Your task to perform on an android device: Go to calendar. Show me events next week Image 0: 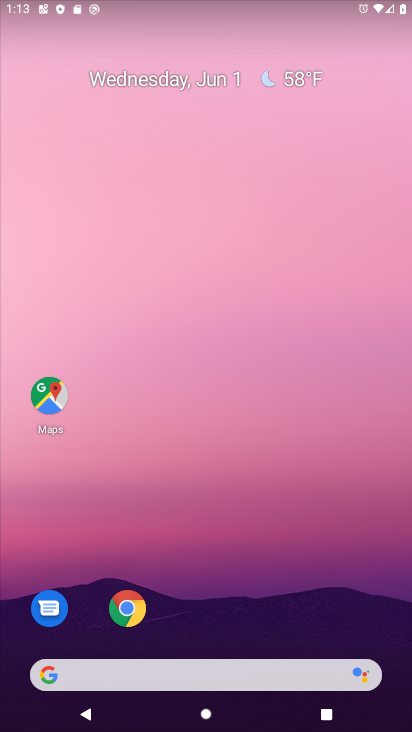
Step 0: drag from (282, 561) to (298, 3)
Your task to perform on an android device: Go to calendar. Show me events next week Image 1: 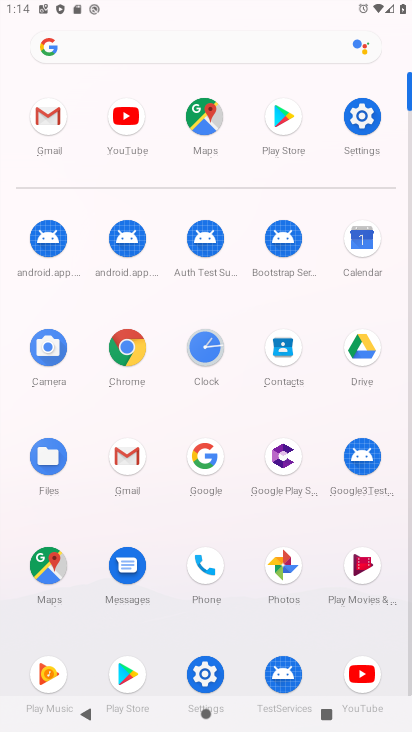
Step 1: click (369, 223)
Your task to perform on an android device: Go to calendar. Show me events next week Image 2: 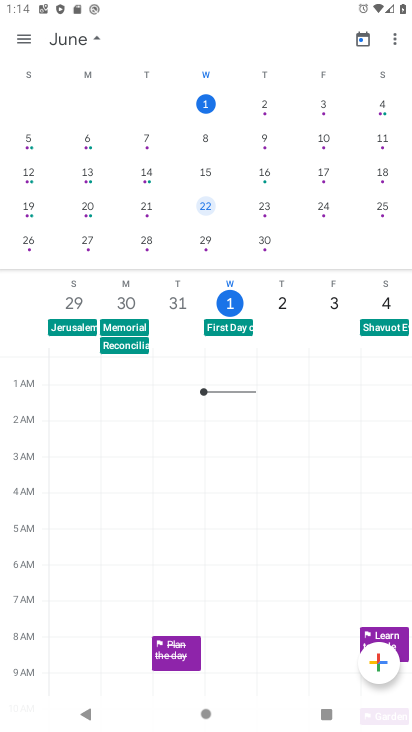
Step 2: drag from (372, 307) to (63, 287)
Your task to perform on an android device: Go to calendar. Show me events next week Image 3: 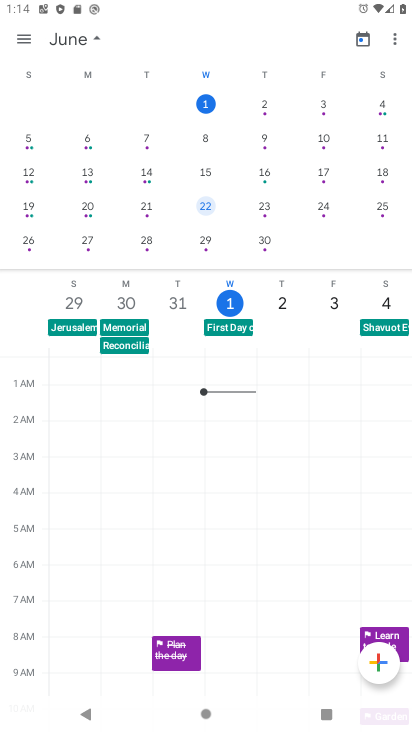
Step 3: click (21, 138)
Your task to perform on an android device: Go to calendar. Show me events next week Image 4: 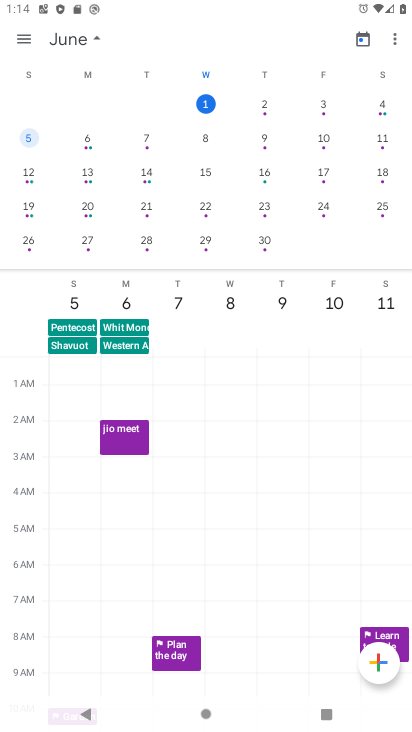
Step 4: task complete